Your task to perform on an android device: open device folders in google photos Image 0: 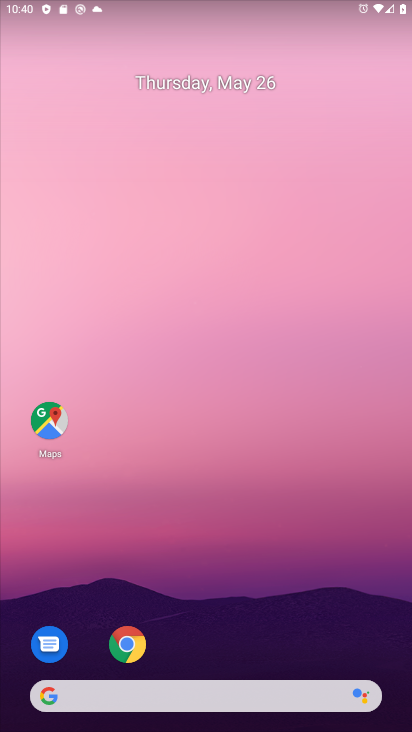
Step 0: drag from (251, 629) to (242, 146)
Your task to perform on an android device: open device folders in google photos Image 1: 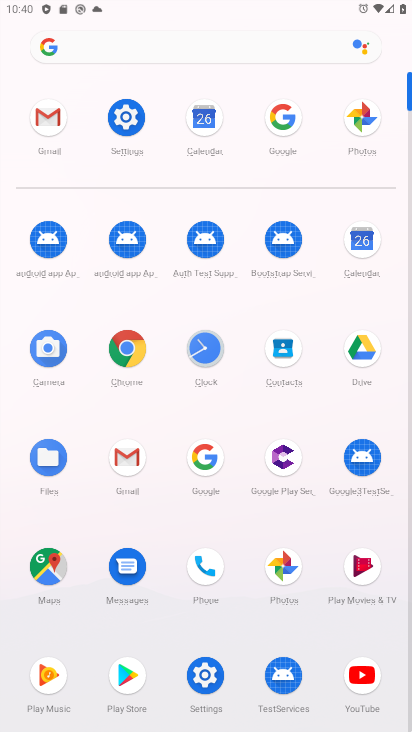
Step 1: click (277, 572)
Your task to perform on an android device: open device folders in google photos Image 2: 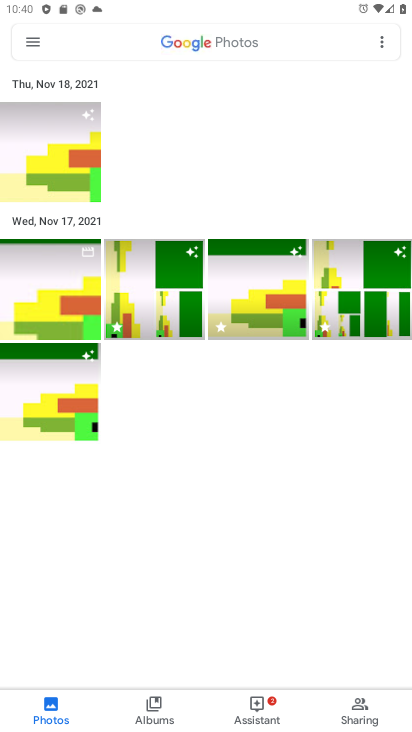
Step 2: click (31, 44)
Your task to perform on an android device: open device folders in google photos Image 3: 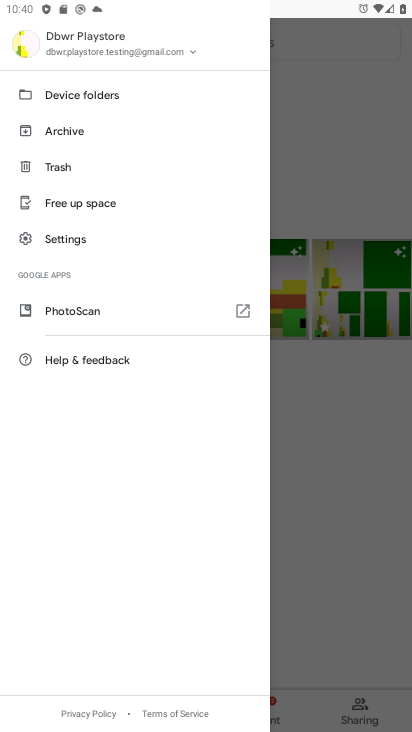
Step 3: click (91, 92)
Your task to perform on an android device: open device folders in google photos Image 4: 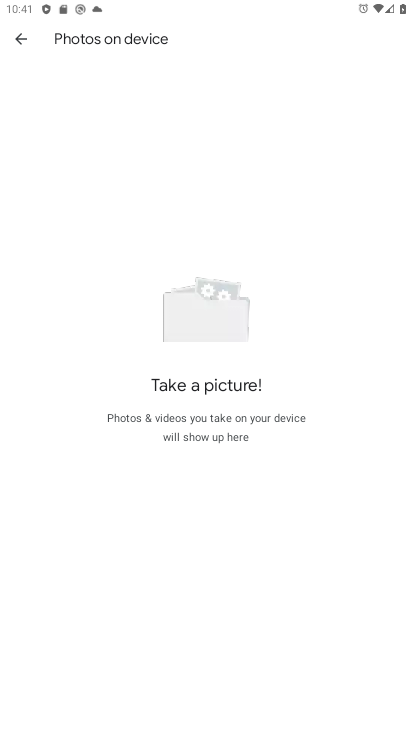
Step 4: task complete